Your task to perform on an android device: open app "Airtel Thanks" (install if not already installed) Image 0: 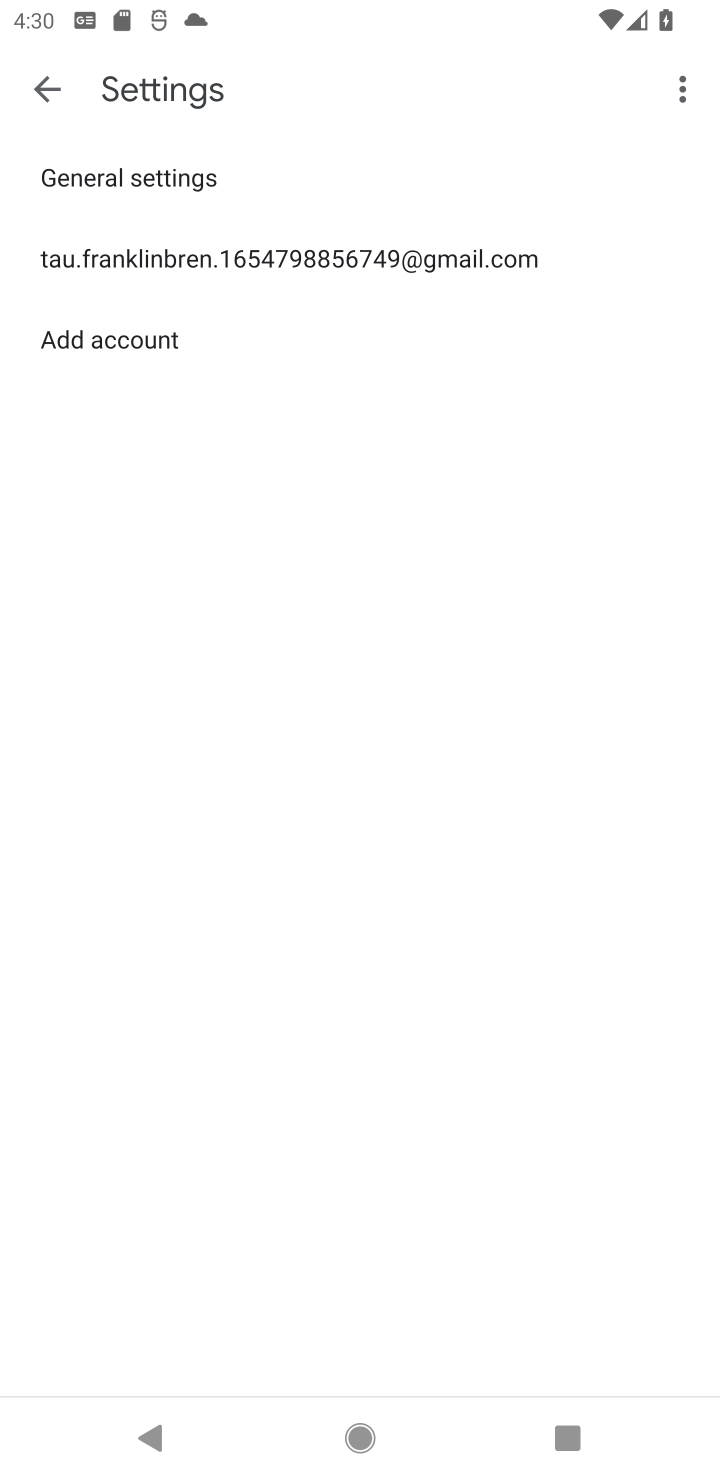
Step 0: press home button
Your task to perform on an android device: open app "Airtel Thanks" (install if not already installed) Image 1: 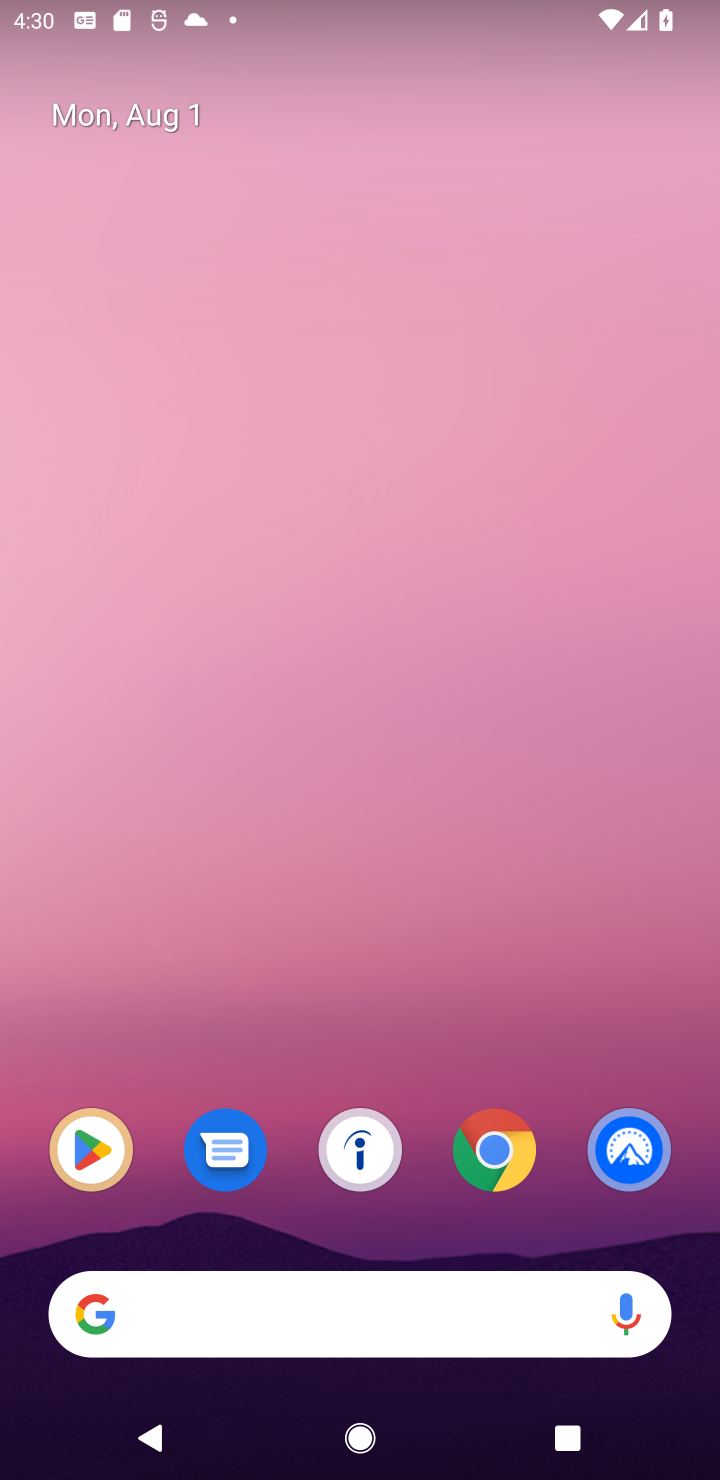
Step 1: click (98, 1183)
Your task to perform on an android device: open app "Airtel Thanks" (install if not already installed) Image 2: 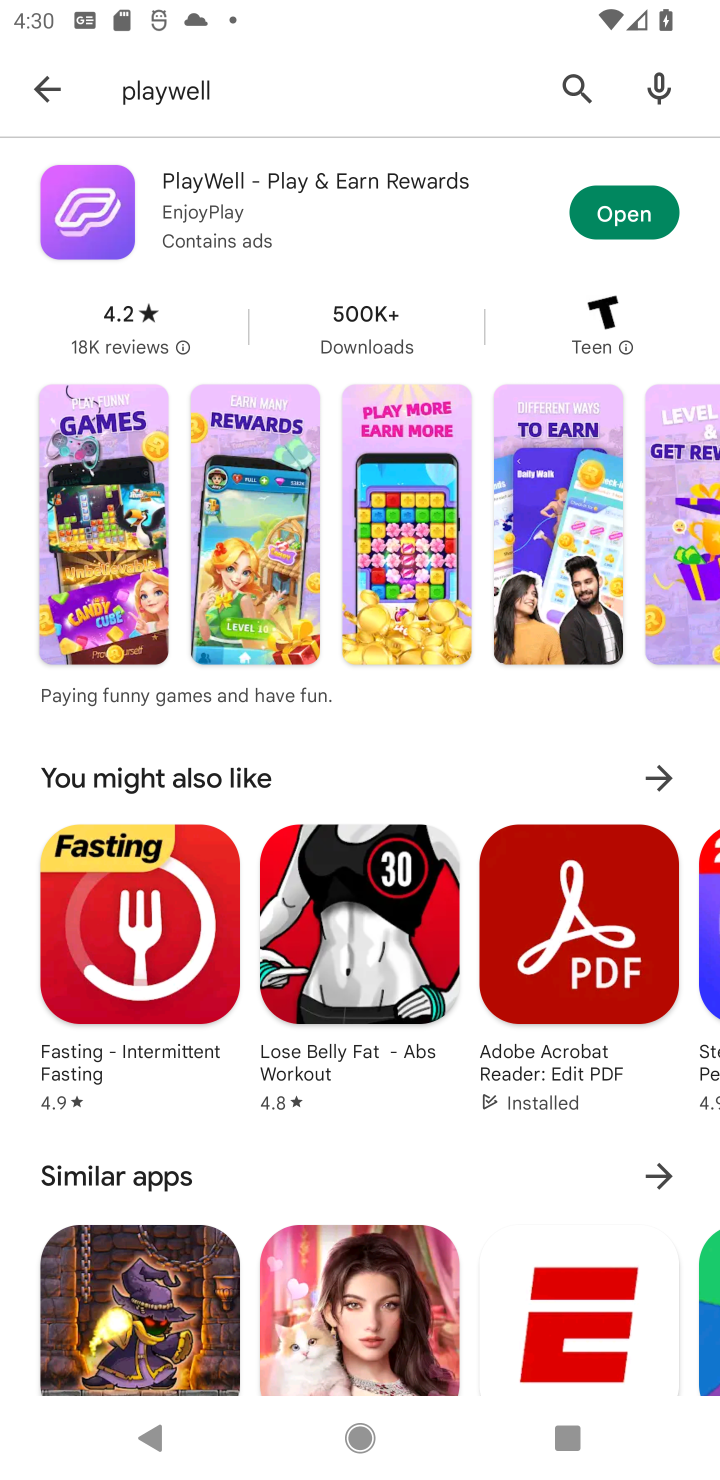
Step 2: click (582, 118)
Your task to perform on an android device: open app "Airtel Thanks" (install if not already installed) Image 3: 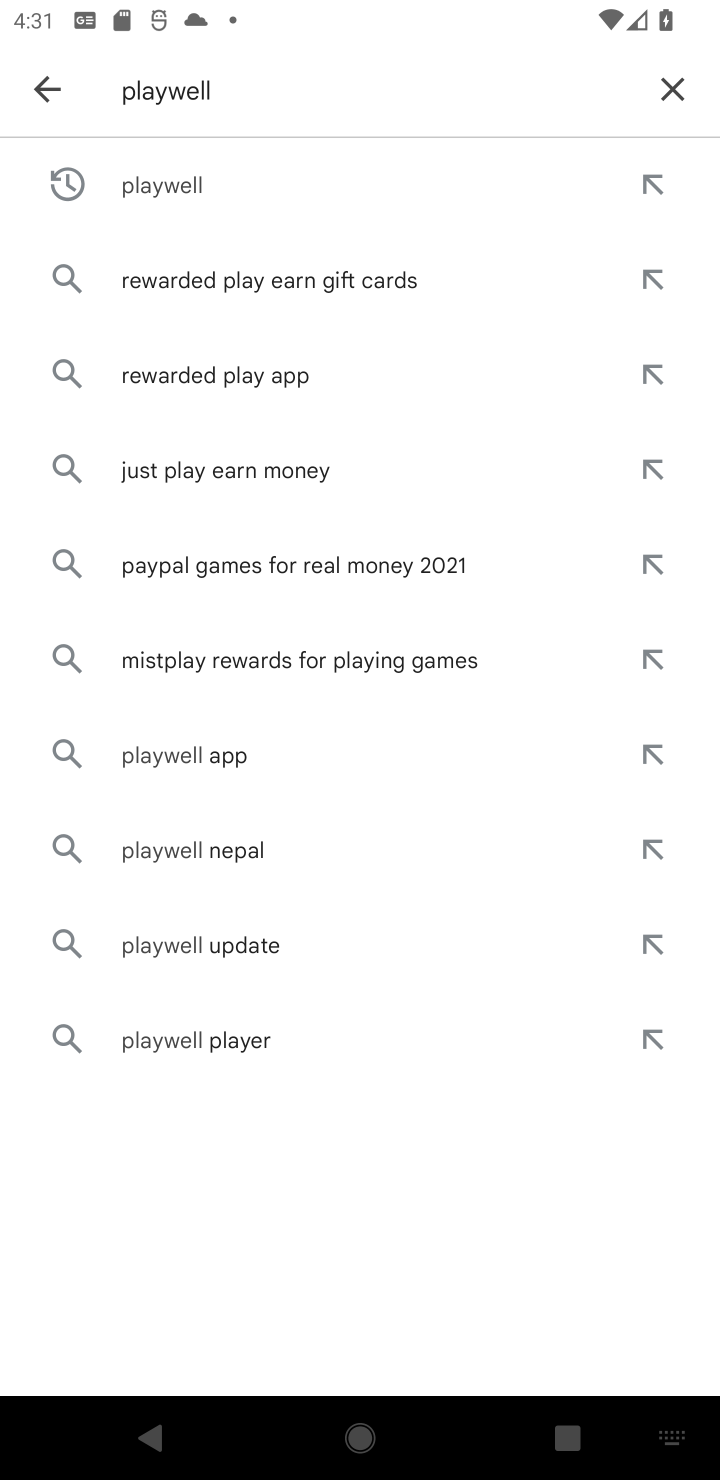
Step 3: click (664, 83)
Your task to perform on an android device: open app "Airtel Thanks" (install if not already installed) Image 4: 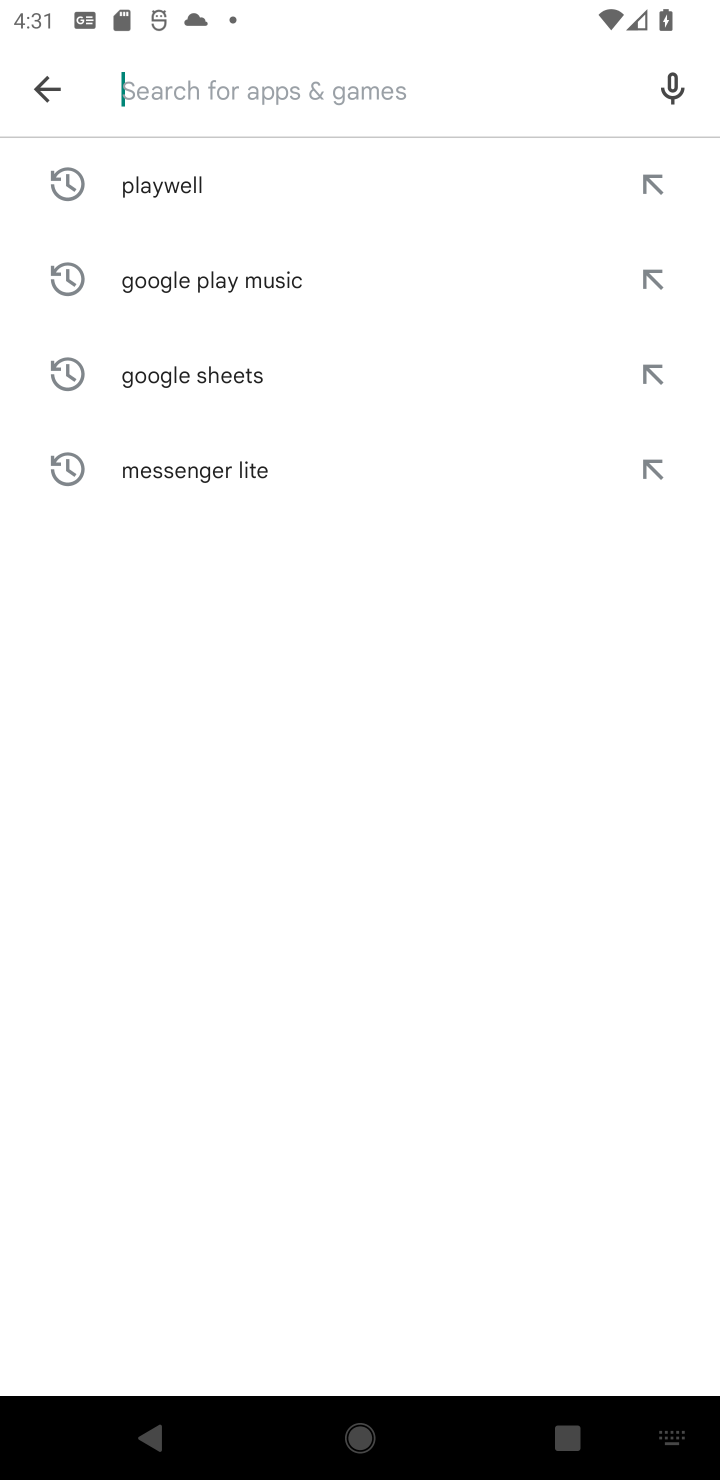
Step 4: type "airtel  thanks"
Your task to perform on an android device: open app "Airtel Thanks" (install if not already installed) Image 5: 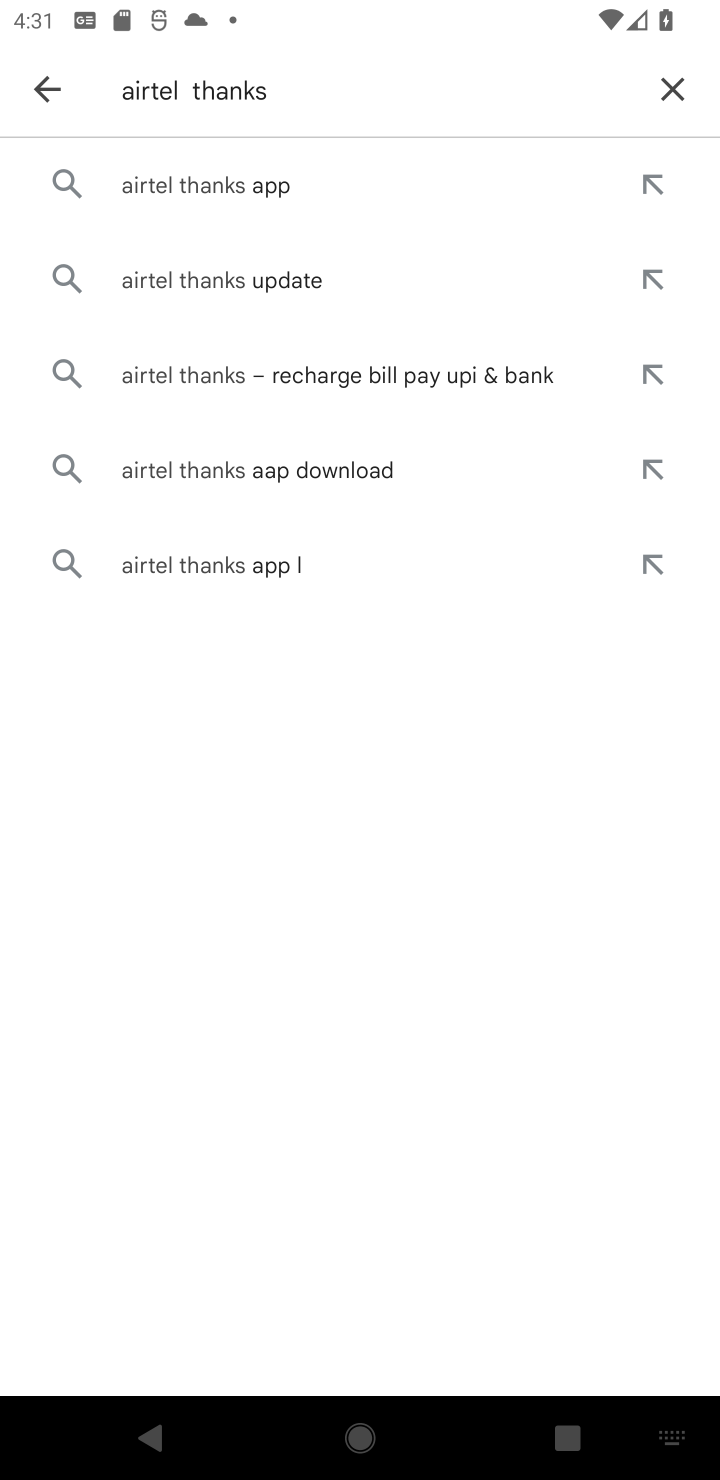
Step 5: click (286, 212)
Your task to perform on an android device: open app "Airtel Thanks" (install if not already installed) Image 6: 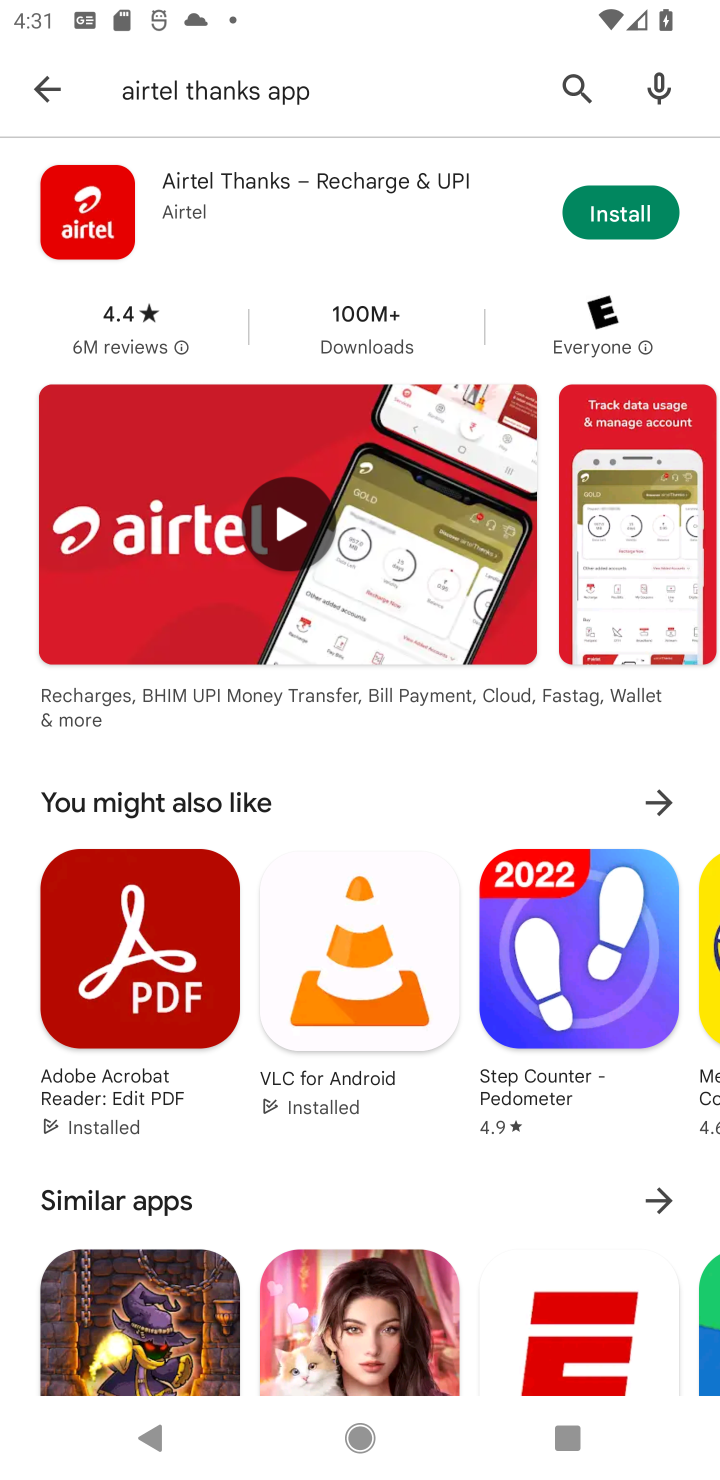
Step 6: click (657, 212)
Your task to perform on an android device: open app "Airtel Thanks" (install if not already installed) Image 7: 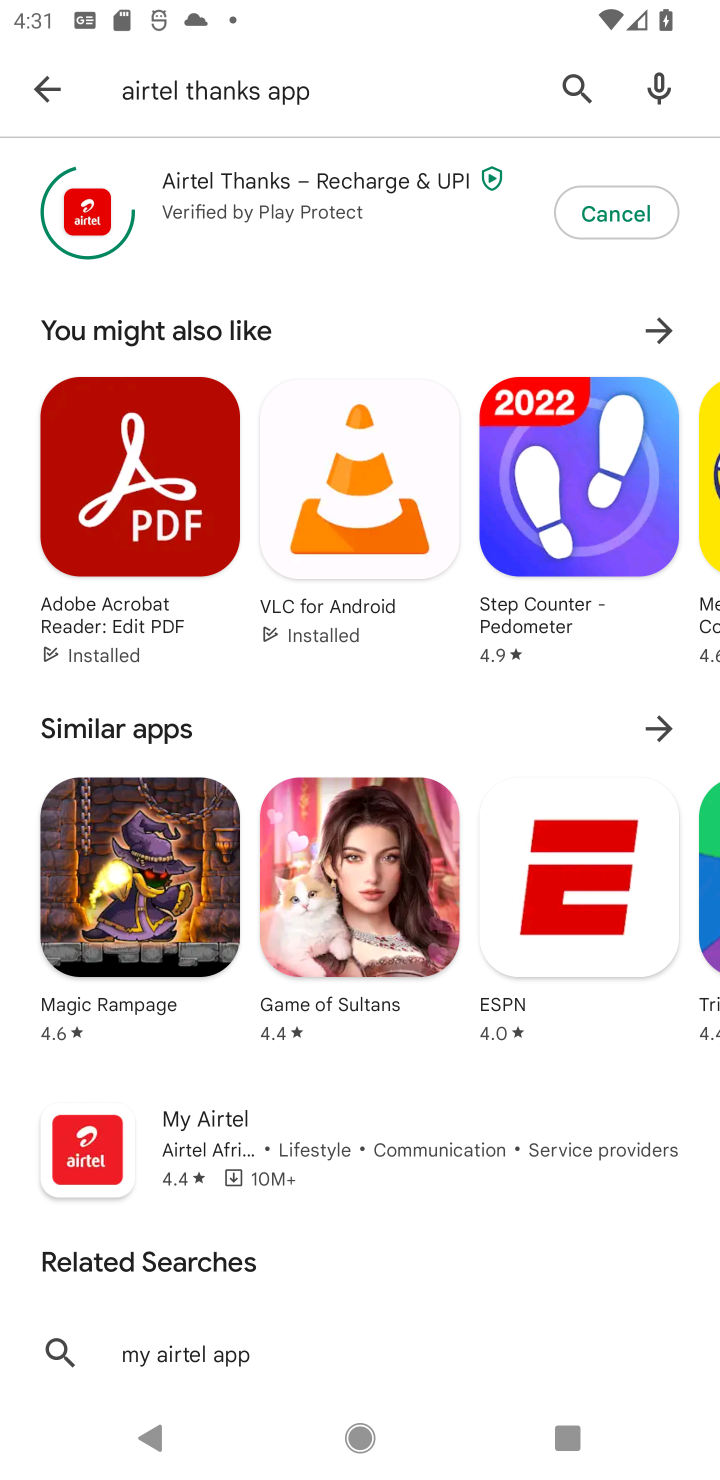
Step 7: task complete